Your task to perform on an android device: Set an alarm for 8am Image 0: 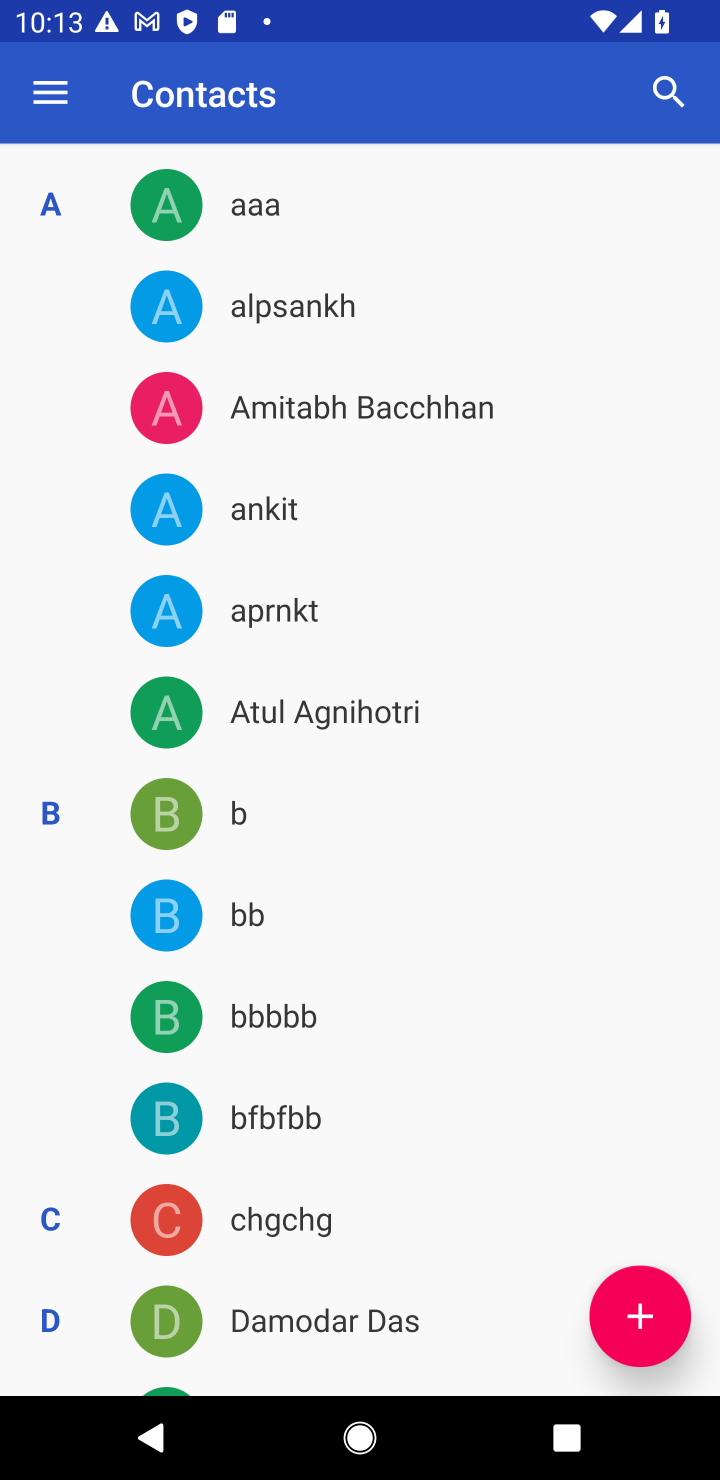
Step 0: press home button
Your task to perform on an android device: Set an alarm for 8am Image 1: 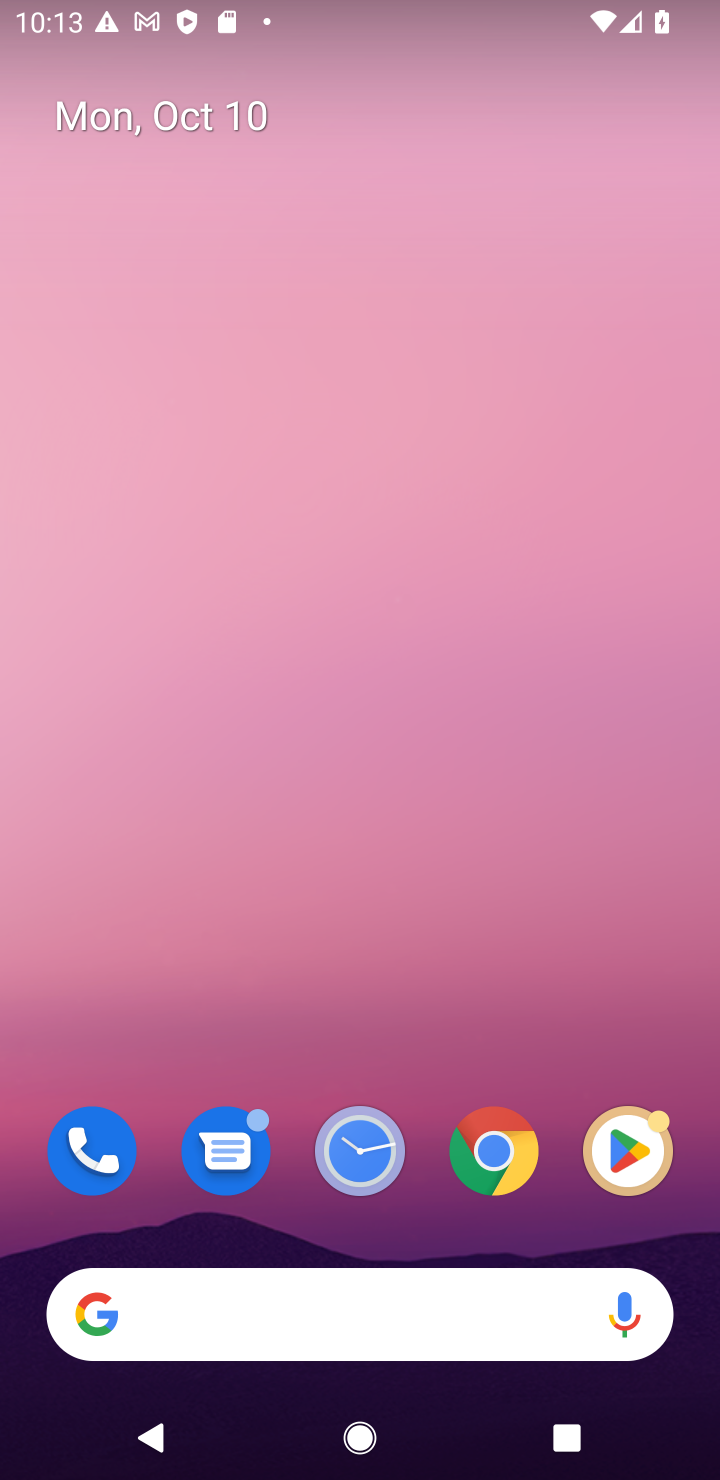
Step 1: click (402, 1178)
Your task to perform on an android device: Set an alarm for 8am Image 2: 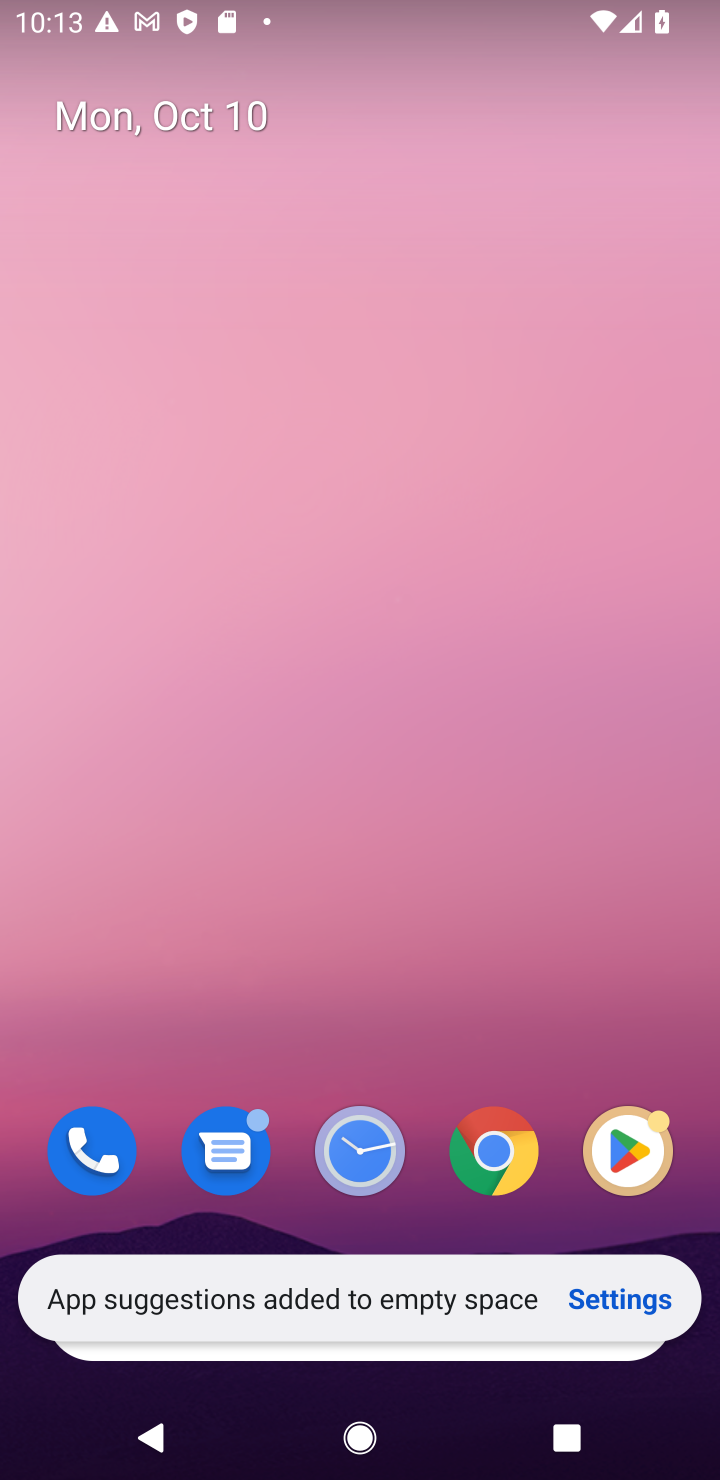
Step 2: click (353, 1174)
Your task to perform on an android device: Set an alarm for 8am Image 3: 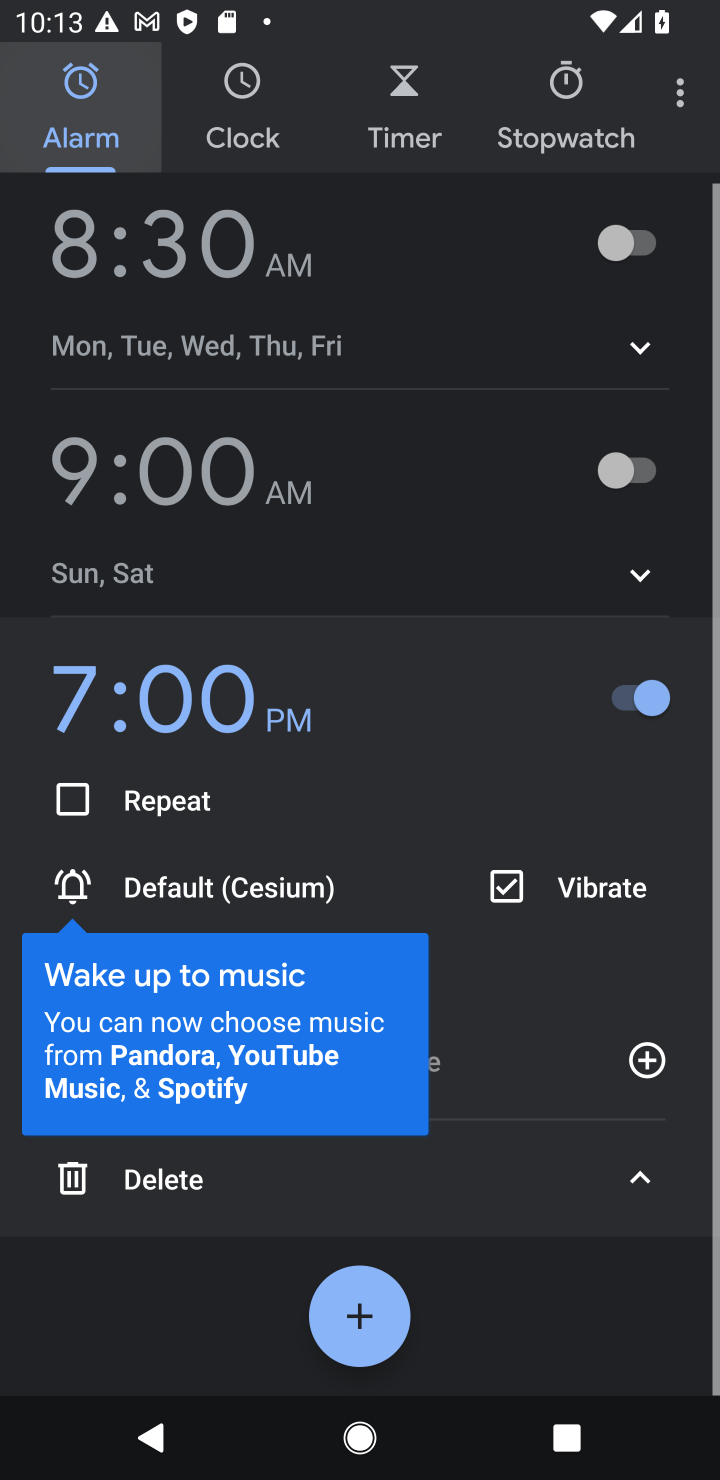
Step 3: click (353, 1174)
Your task to perform on an android device: Set an alarm for 8am Image 4: 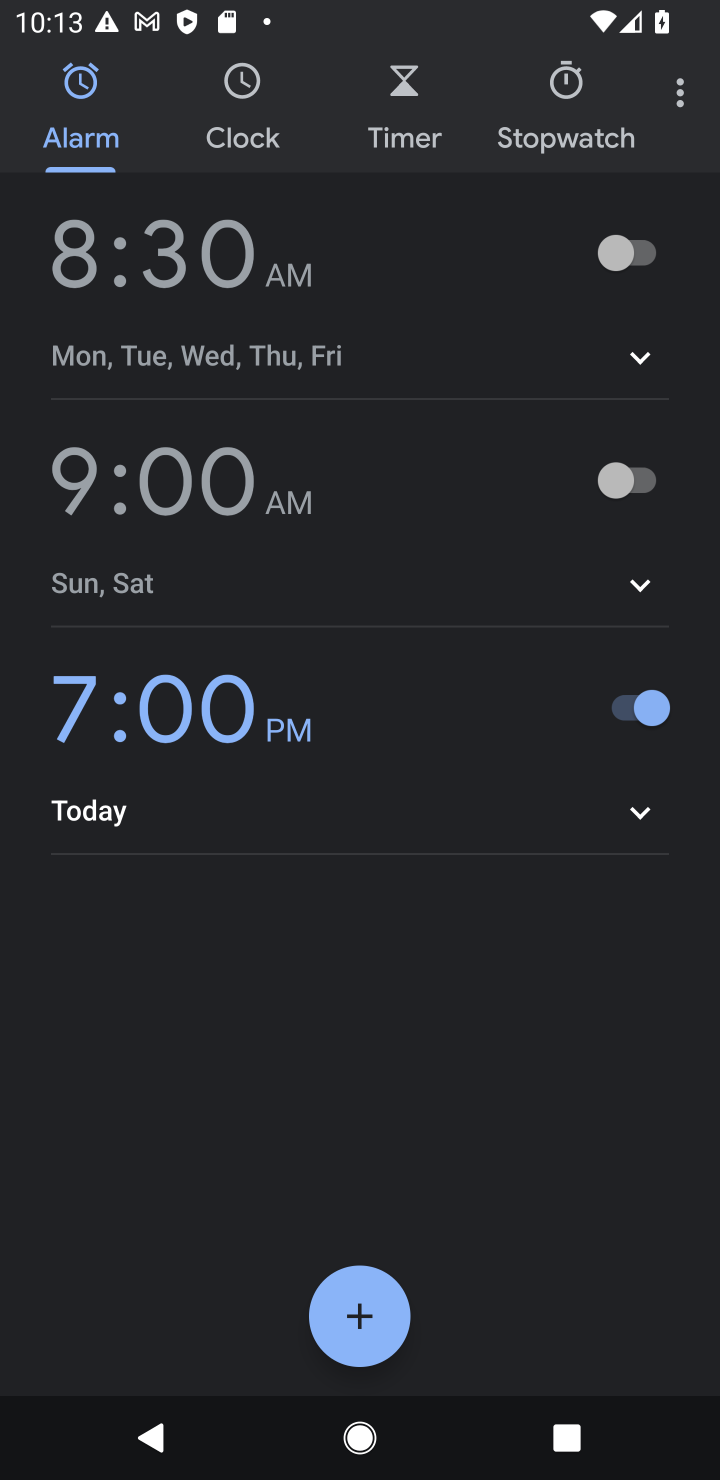
Step 4: click (387, 1333)
Your task to perform on an android device: Set an alarm for 8am Image 5: 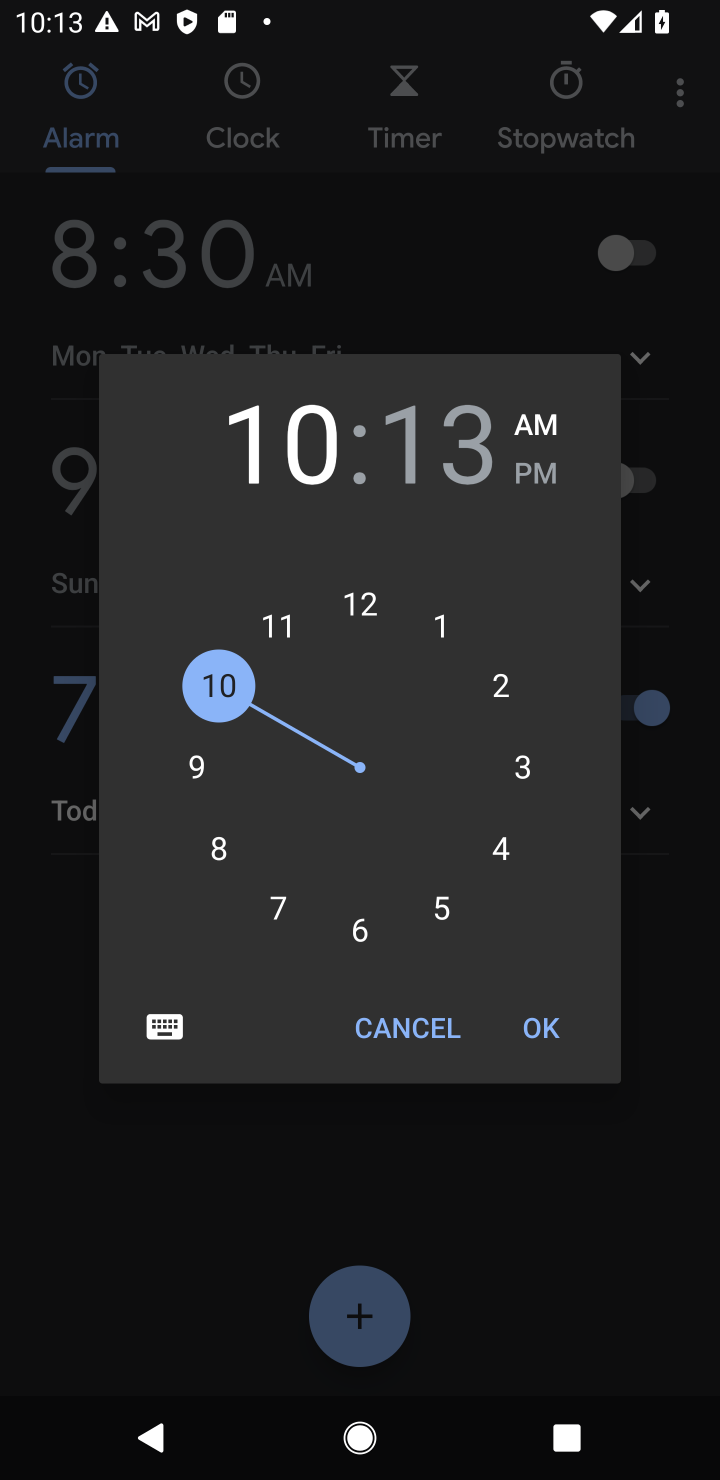
Step 5: click (217, 849)
Your task to perform on an android device: Set an alarm for 8am Image 6: 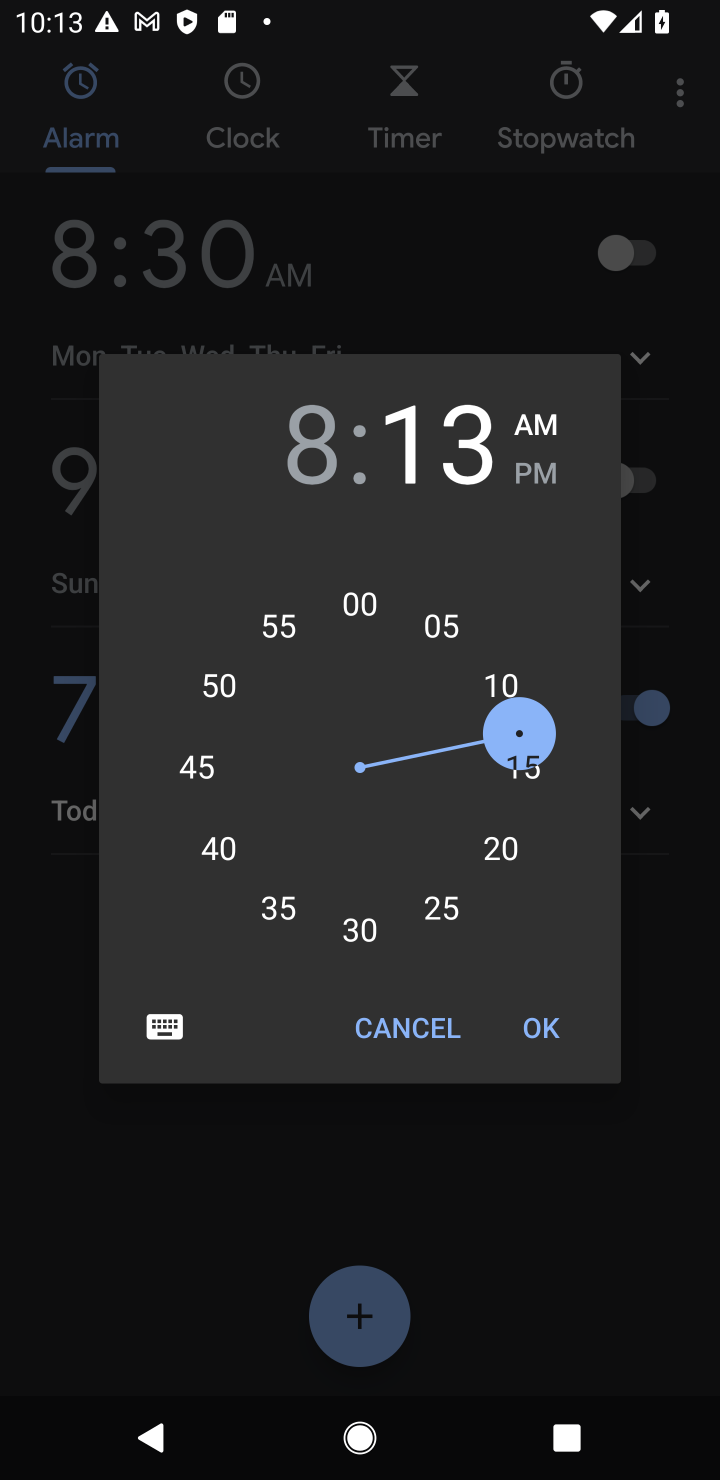
Step 6: click (372, 615)
Your task to perform on an android device: Set an alarm for 8am Image 7: 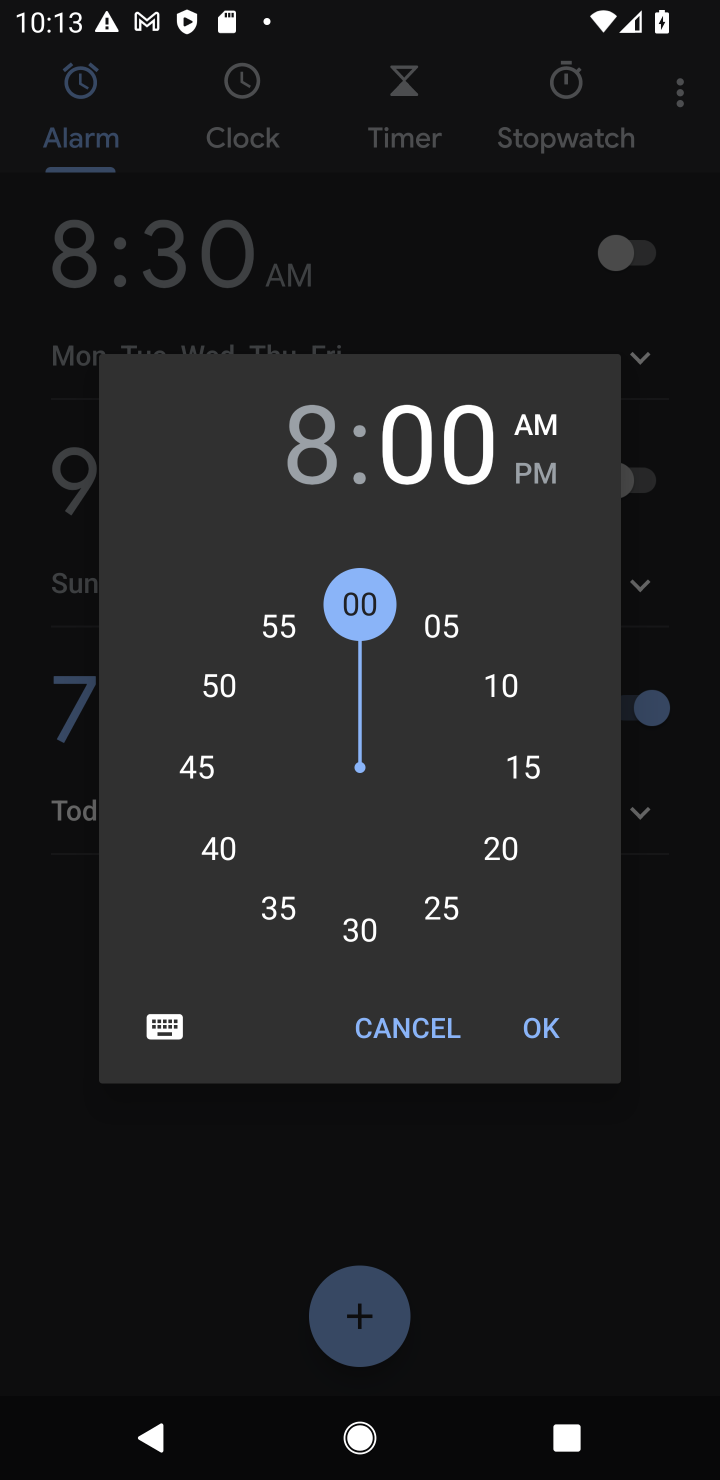
Step 7: click (555, 1035)
Your task to perform on an android device: Set an alarm for 8am Image 8: 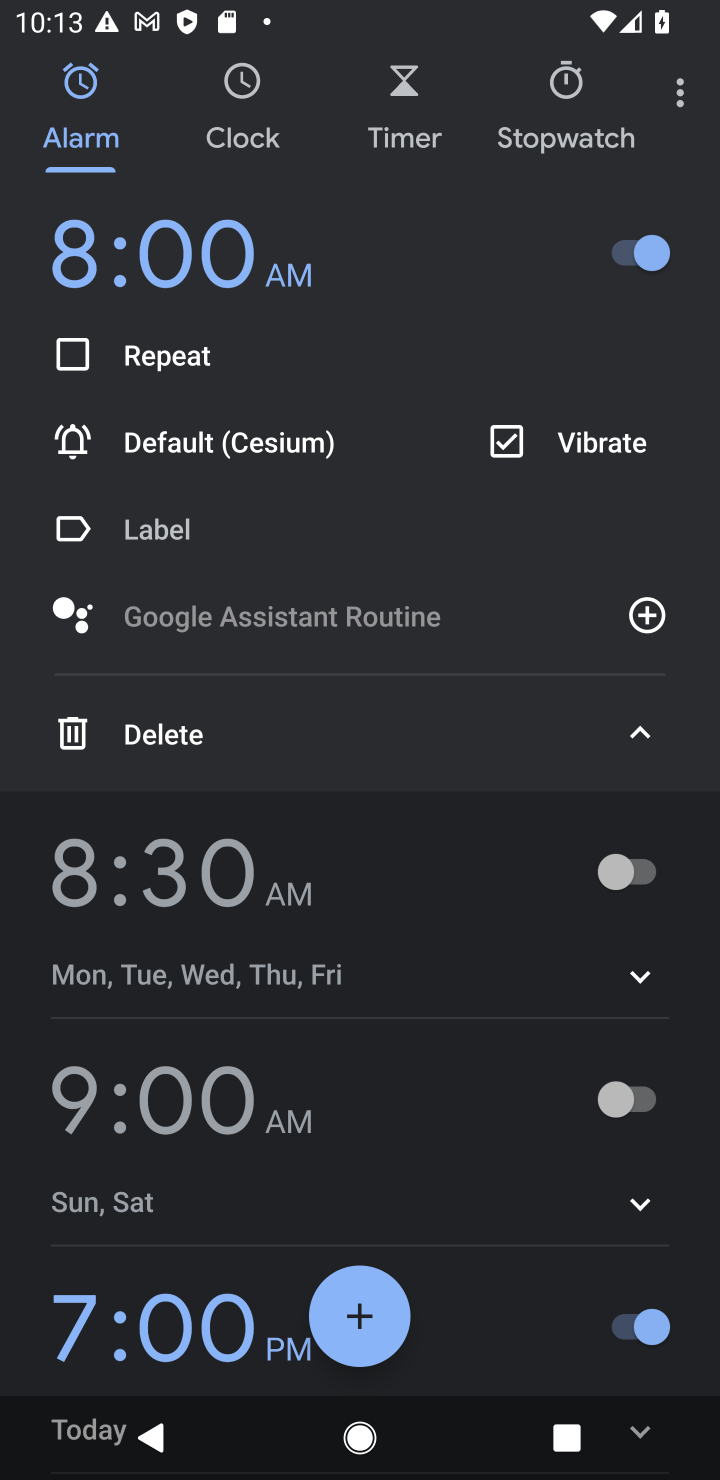
Step 8: task complete